Your task to perform on an android device: What's the weather going to be this weekend? Image 0: 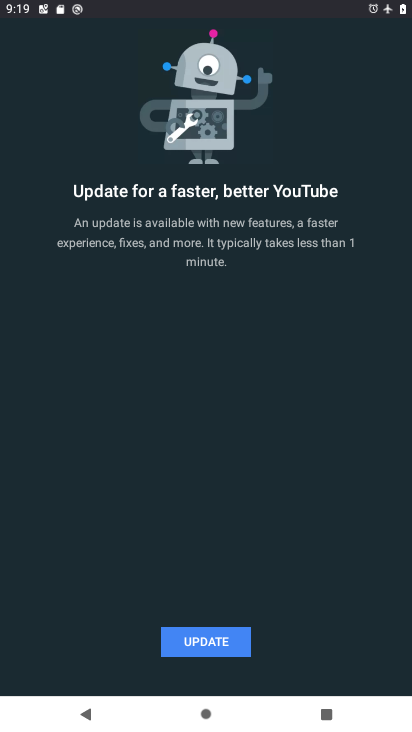
Step 0: press home button
Your task to perform on an android device: What's the weather going to be this weekend? Image 1: 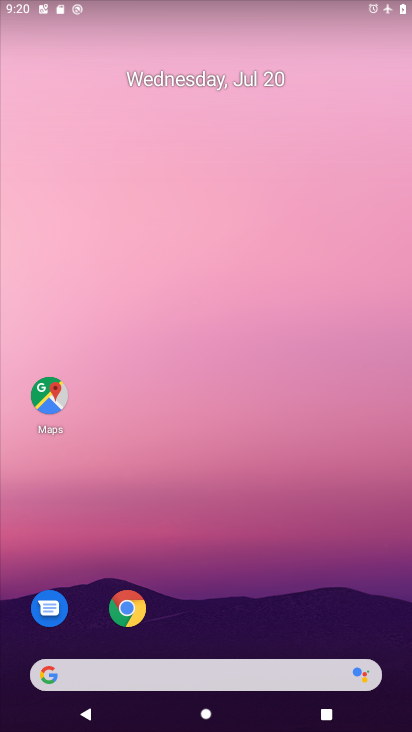
Step 1: click (127, 597)
Your task to perform on an android device: What's the weather going to be this weekend? Image 2: 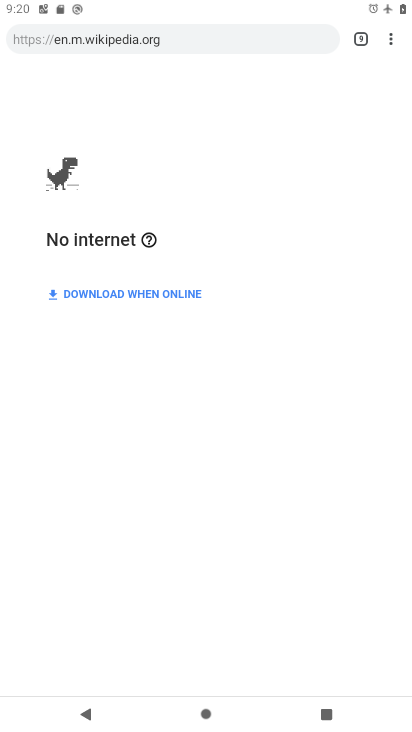
Step 2: click (394, 29)
Your task to perform on an android device: What's the weather going to be this weekend? Image 3: 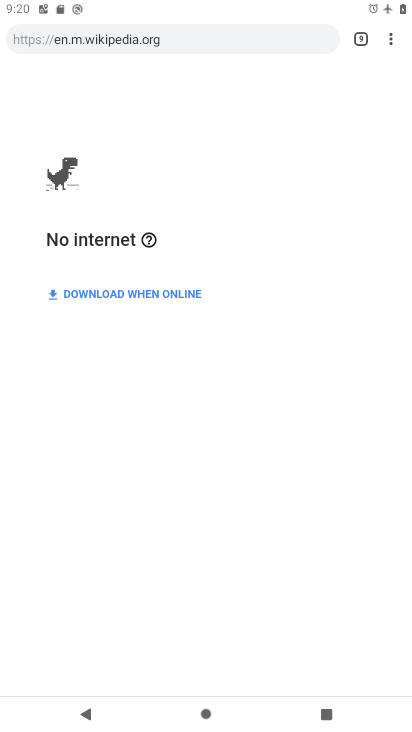
Step 3: click (400, 31)
Your task to perform on an android device: What's the weather going to be this weekend? Image 4: 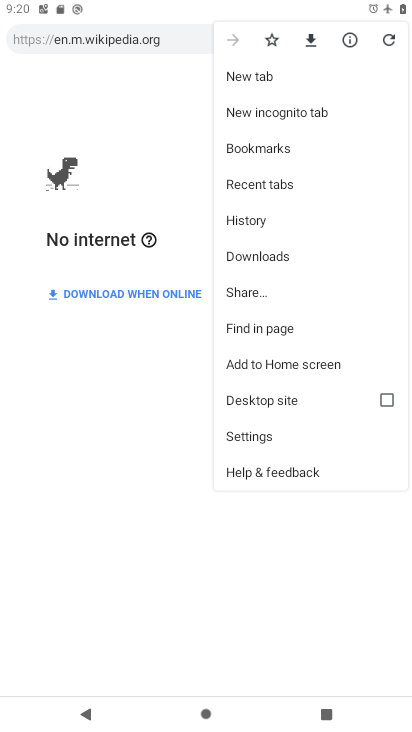
Step 4: click (280, 67)
Your task to perform on an android device: What's the weather going to be this weekend? Image 5: 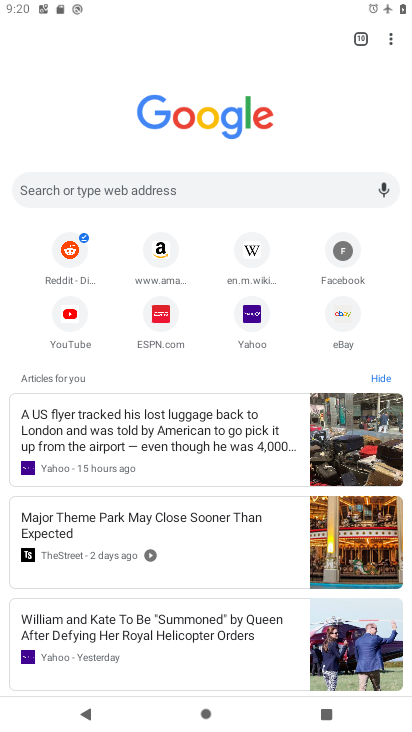
Step 5: click (118, 186)
Your task to perform on an android device: What's the weather going to be this weekend? Image 6: 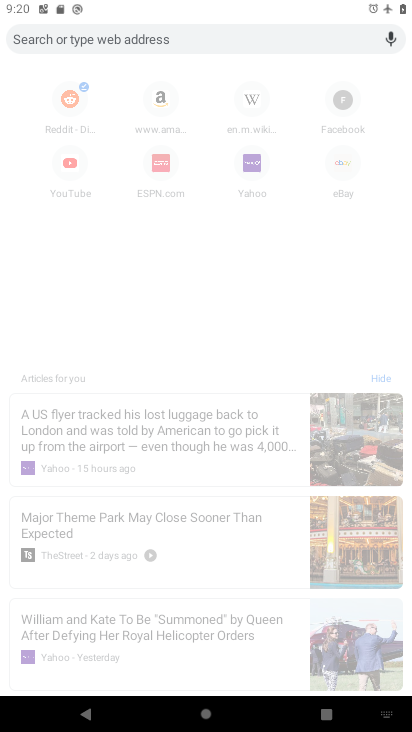
Step 6: type "What's the weather going to be this weekend "
Your task to perform on an android device: What's the weather going to be this weekend? Image 7: 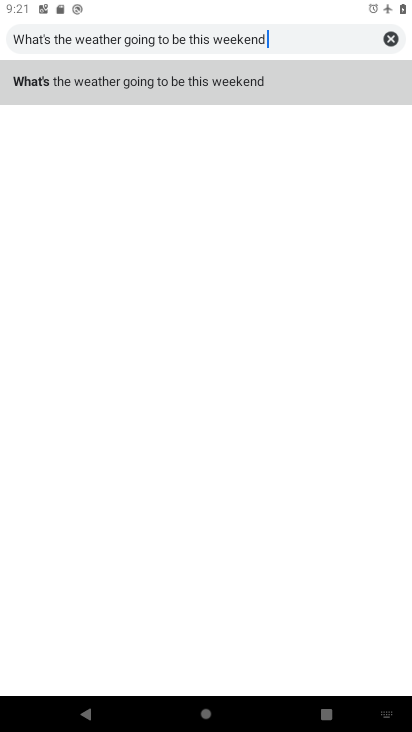
Step 7: click (275, 84)
Your task to perform on an android device: What's the weather going to be this weekend? Image 8: 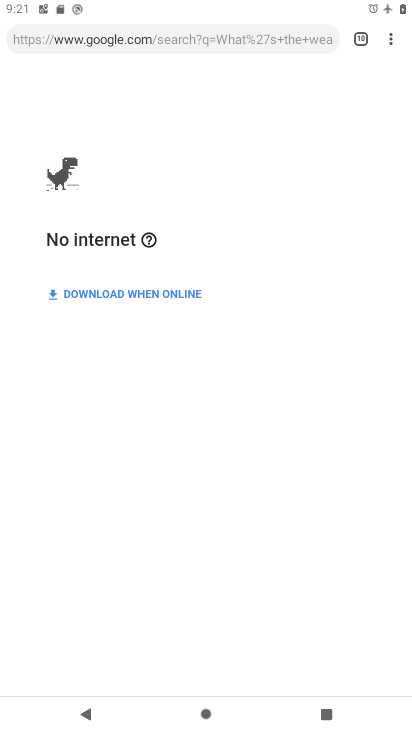
Step 8: task complete